Your task to perform on an android device: toggle location history Image 0: 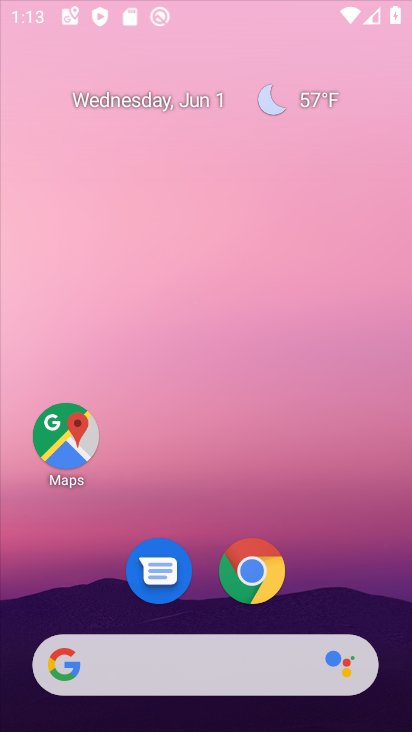
Step 0: drag from (297, 27) to (229, 9)
Your task to perform on an android device: toggle location history Image 1: 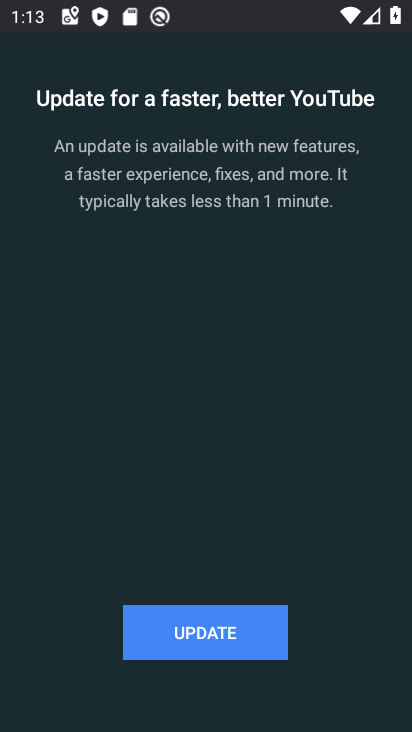
Step 1: press home button
Your task to perform on an android device: toggle location history Image 2: 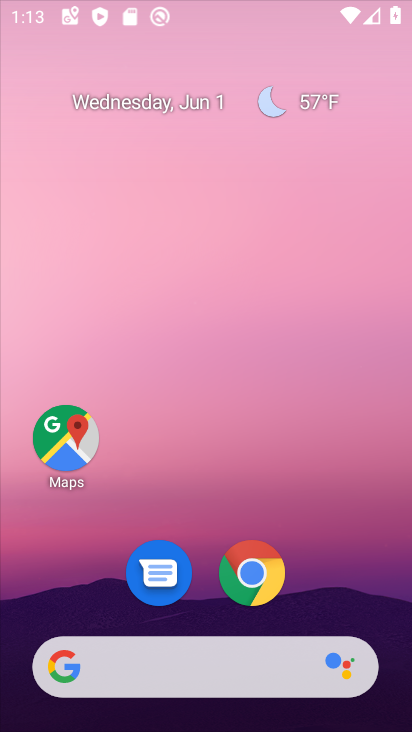
Step 2: drag from (230, 616) to (240, 63)
Your task to perform on an android device: toggle location history Image 3: 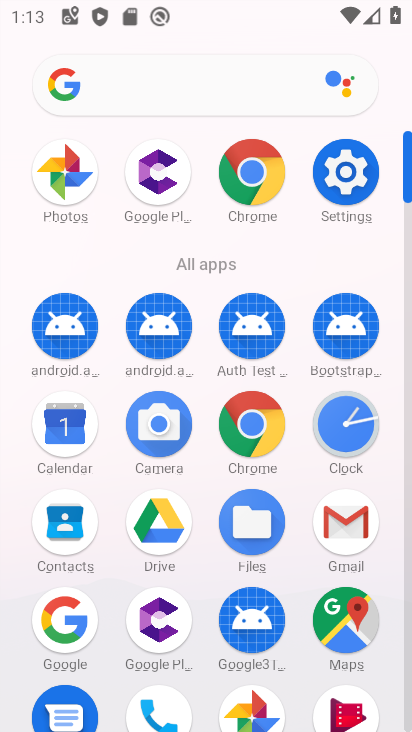
Step 3: click (353, 161)
Your task to perform on an android device: toggle location history Image 4: 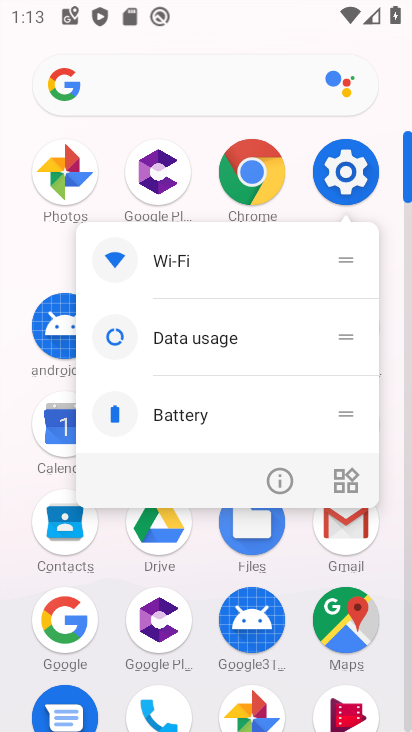
Step 4: click (267, 480)
Your task to perform on an android device: toggle location history Image 5: 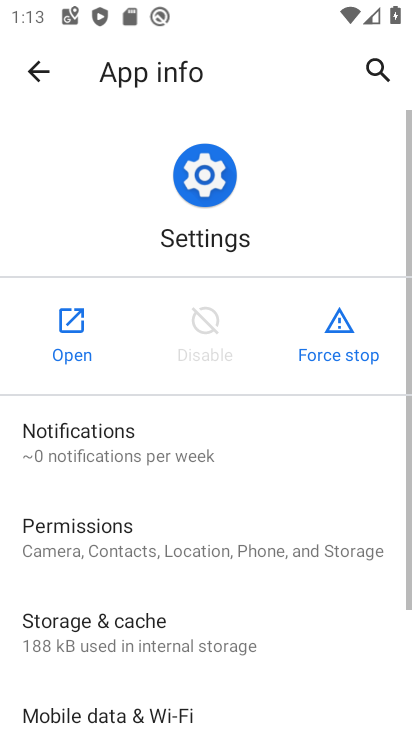
Step 5: click (86, 316)
Your task to perform on an android device: toggle location history Image 6: 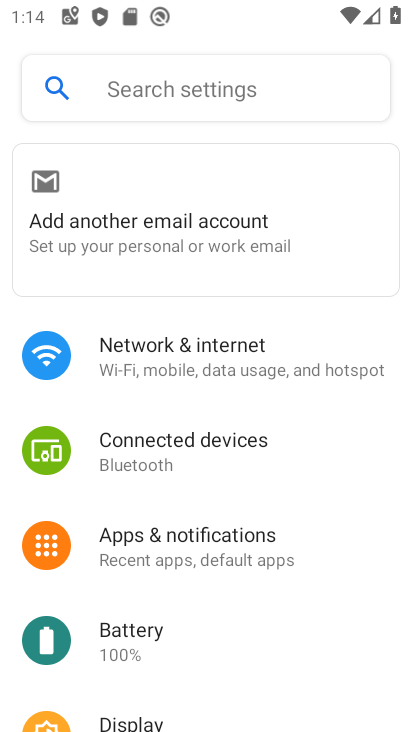
Step 6: drag from (253, 613) to (322, 5)
Your task to perform on an android device: toggle location history Image 7: 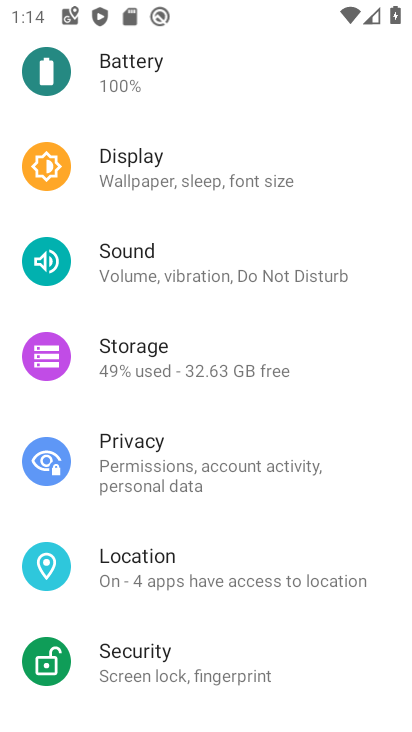
Step 7: click (192, 558)
Your task to perform on an android device: toggle location history Image 8: 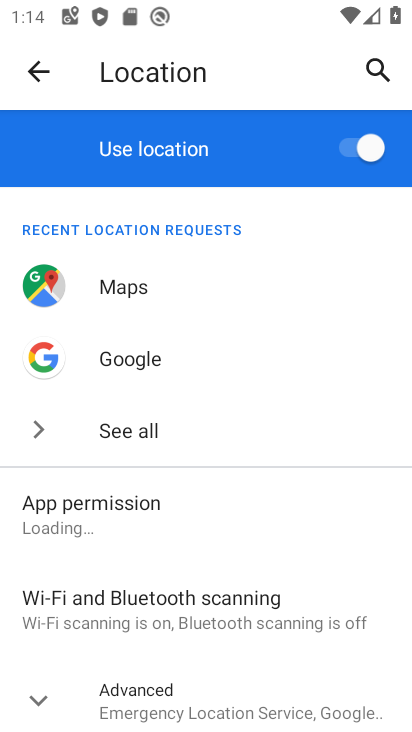
Step 8: click (142, 693)
Your task to perform on an android device: toggle location history Image 9: 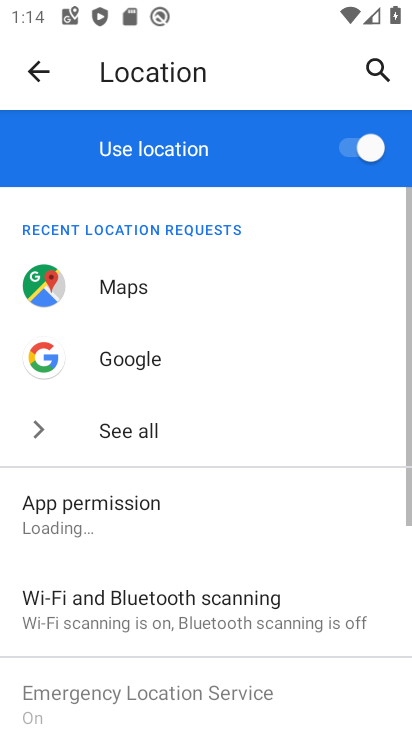
Step 9: drag from (163, 669) to (315, 14)
Your task to perform on an android device: toggle location history Image 10: 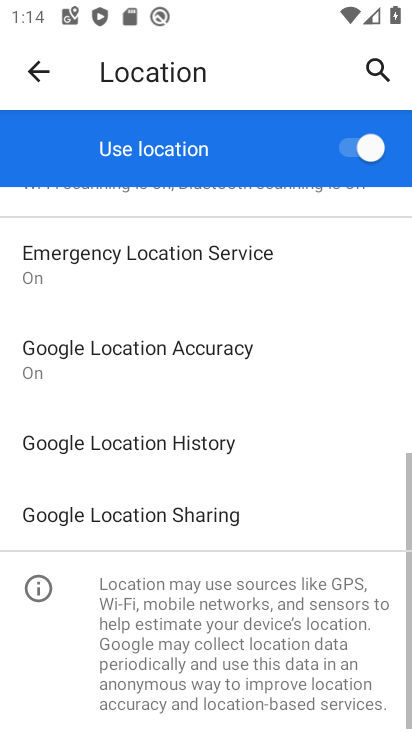
Step 10: click (193, 439)
Your task to perform on an android device: toggle location history Image 11: 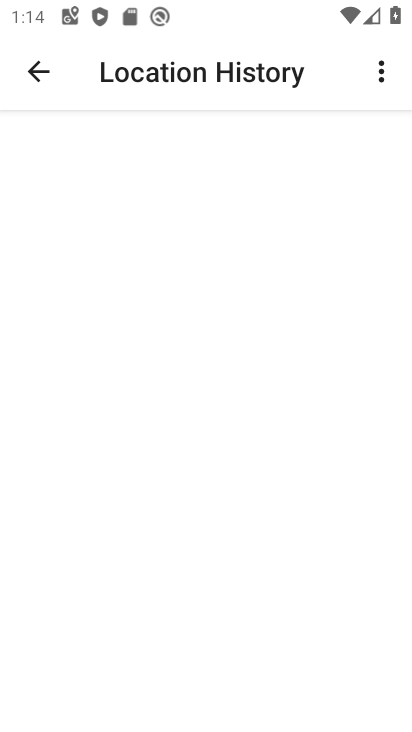
Step 11: drag from (277, 473) to (292, 79)
Your task to perform on an android device: toggle location history Image 12: 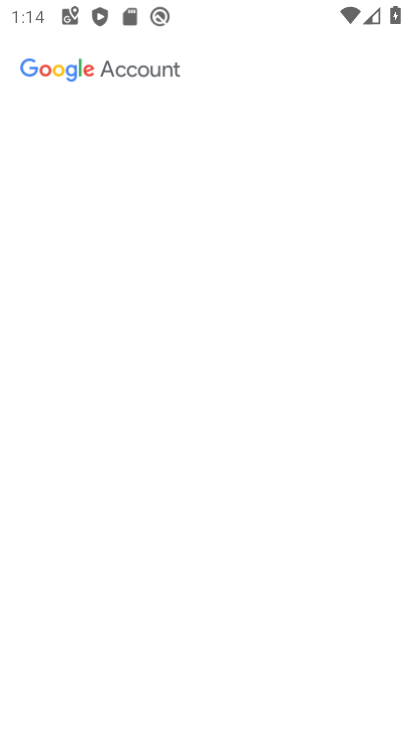
Step 12: drag from (194, 527) to (196, 105)
Your task to perform on an android device: toggle location history Image 13: 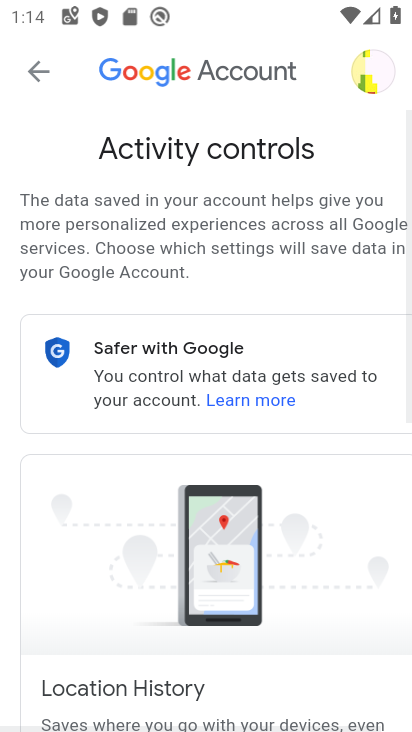
Step 13: drag from (233, 577) to (290, 53)
Your task to perform on an android device: toggle location history Image 14: 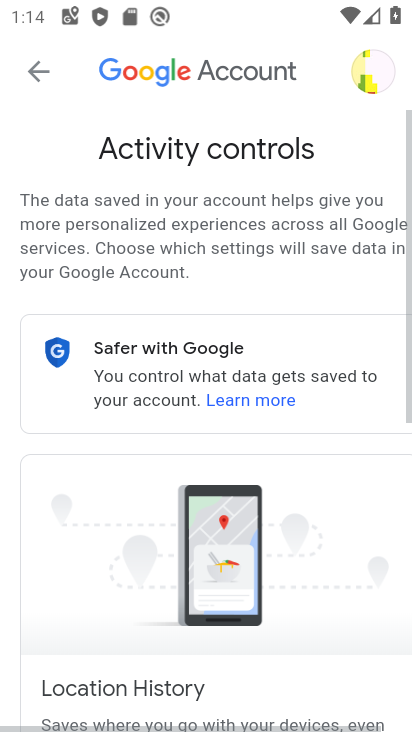
Step 14: click (325, 353)
Your task to perform on an android device: toggle location history Image 15: 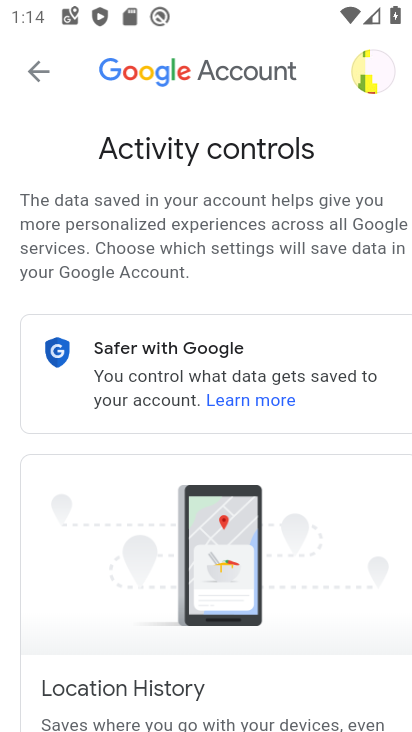
Step 15: drag from (325, 348) to (324, 19)
Your task to perform on an android device: toggle location history Image 16: 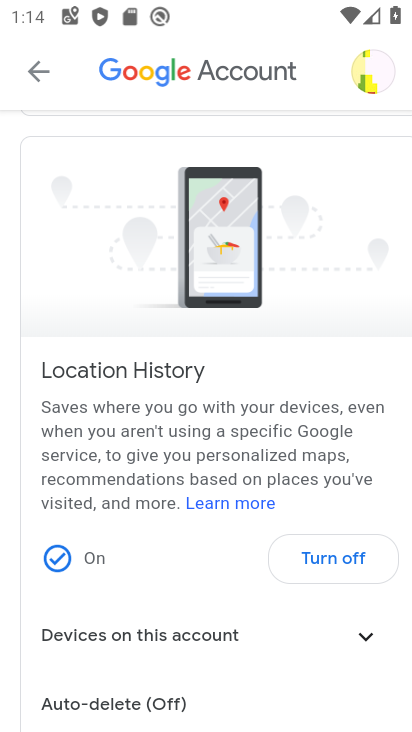
Step 16: click (322, 550)
Your task to perform on an android device: toggle location history Image 17: 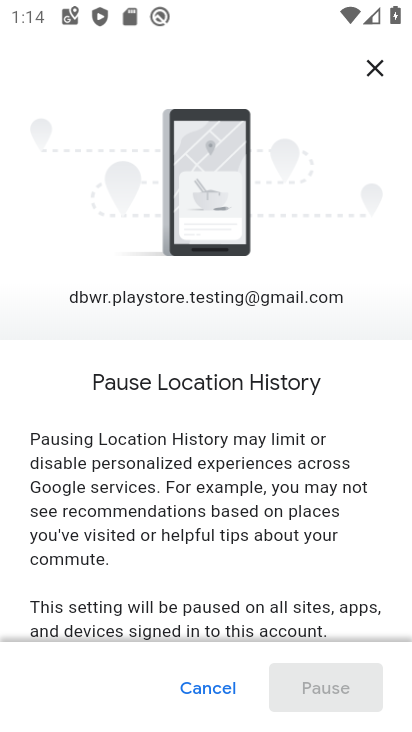
Step 17: drag from (177, 583) to (231, 112)
Your task to perform on an android device: toggle location history Image 18: 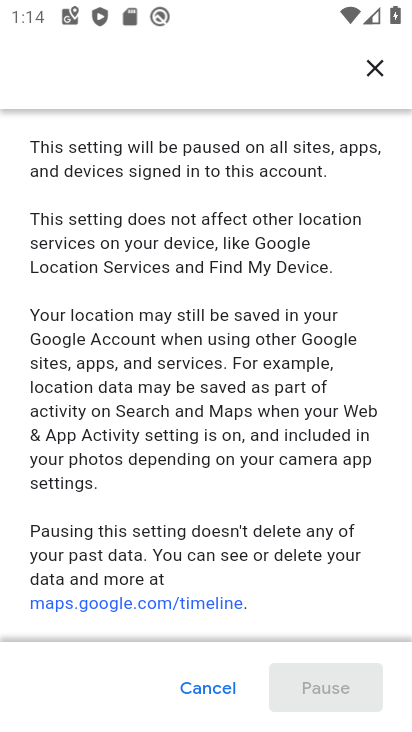
Step 18: drag from (214, 569) to (248, 222)
Your task to perform on an android device: toggle location history Image 19: 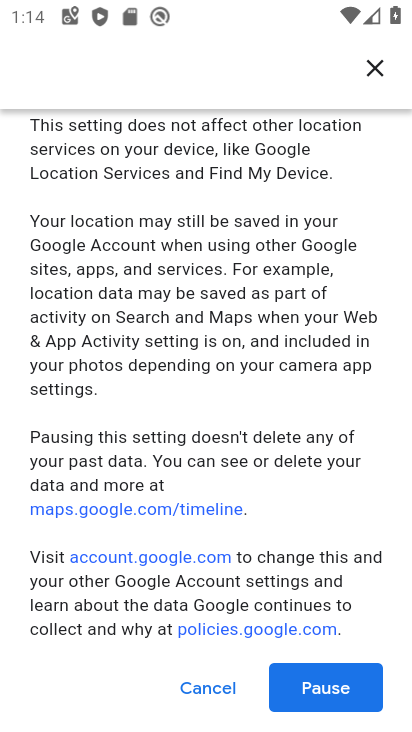
Step 19: click (308, 696)
Your task to perform on an android device: toggle location history Image 20: 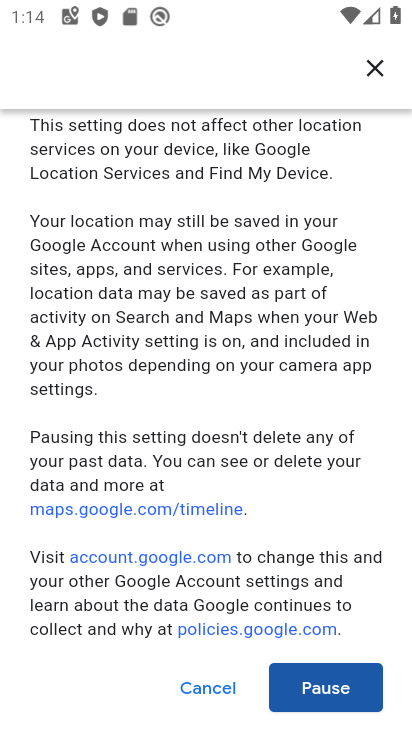
Step 20: click (303, 696)
Your task to perform on an android device: toggle location history Image 21: 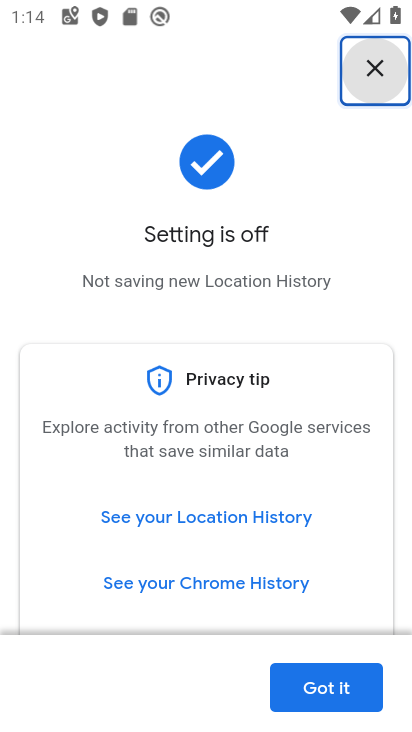
Step 21: click (313, 694)
Your task to perform on an android device: toggle location history Image 22: 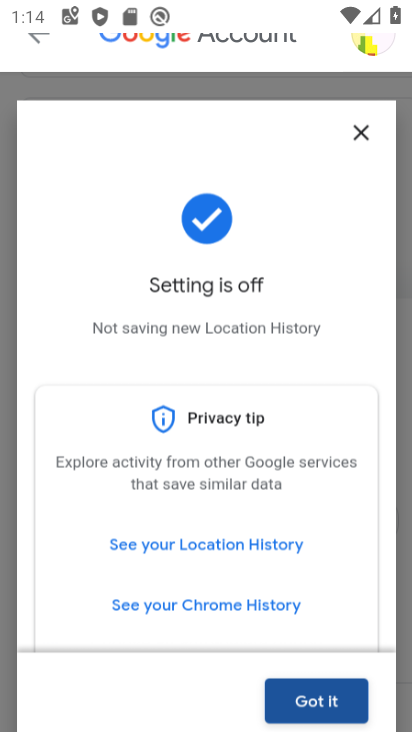
Step 22: task complete